Your task to perform on an android device: turn on priority inbox in the gmail app Image 0: 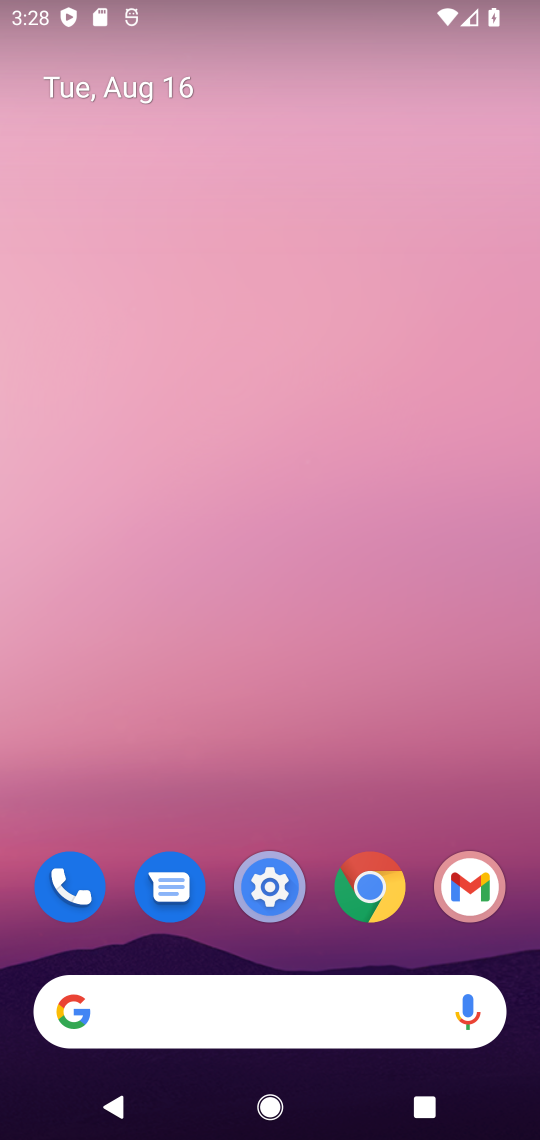
Step 0: drag from (333, 704) to (325, 107)
Your task to perform on an android device: turn on priority inbox in the gmail app Image 1: 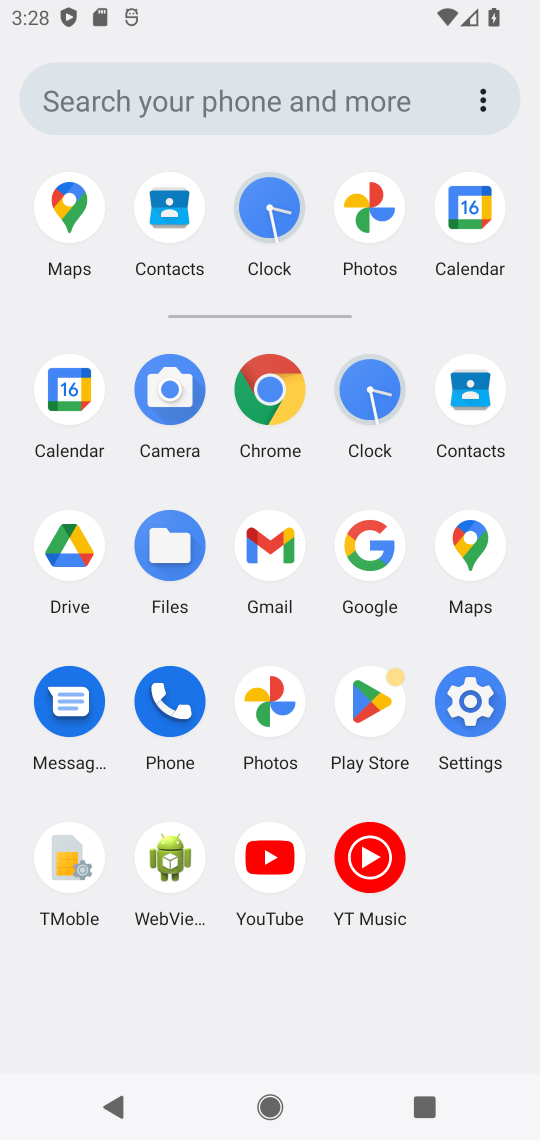
Step 1: click (271, 558)
Your task to perform on an android device: turn on priority inbox in the gmail app Image 2: 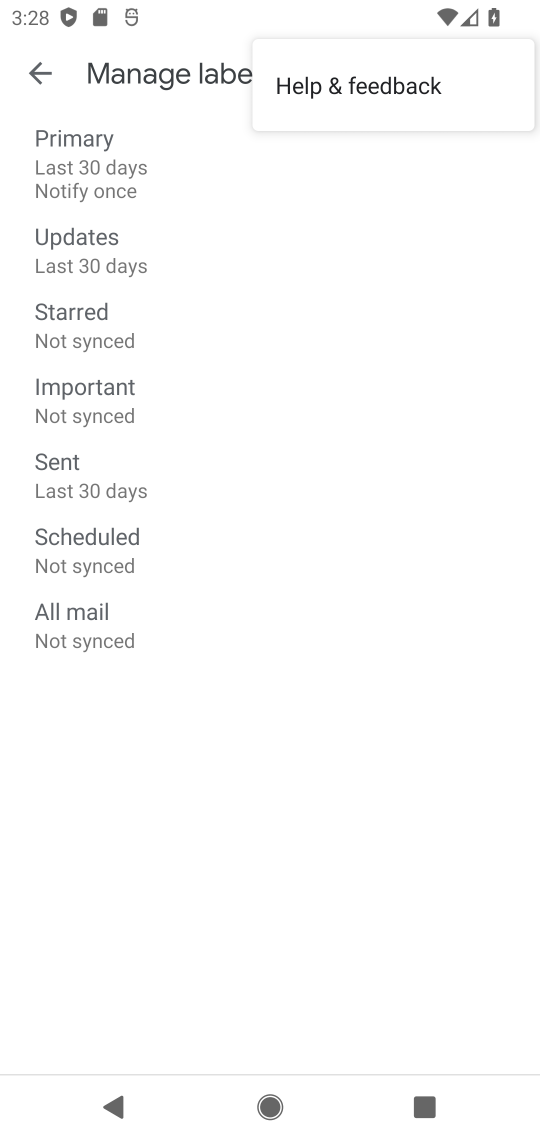
Step 2: click (31, 69)
Your task to perform on an android device: turn on priority inbox in the gmail app Image 3: 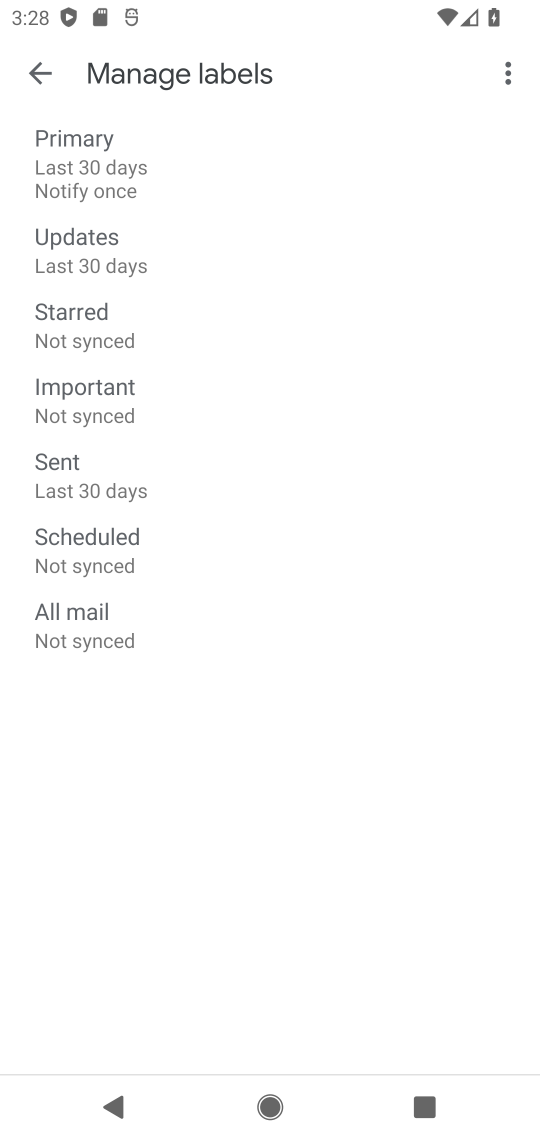
Step 3: click (37, 57)
Your task to perform on an android device: turn on priority inbox in the gmail app Image 4: 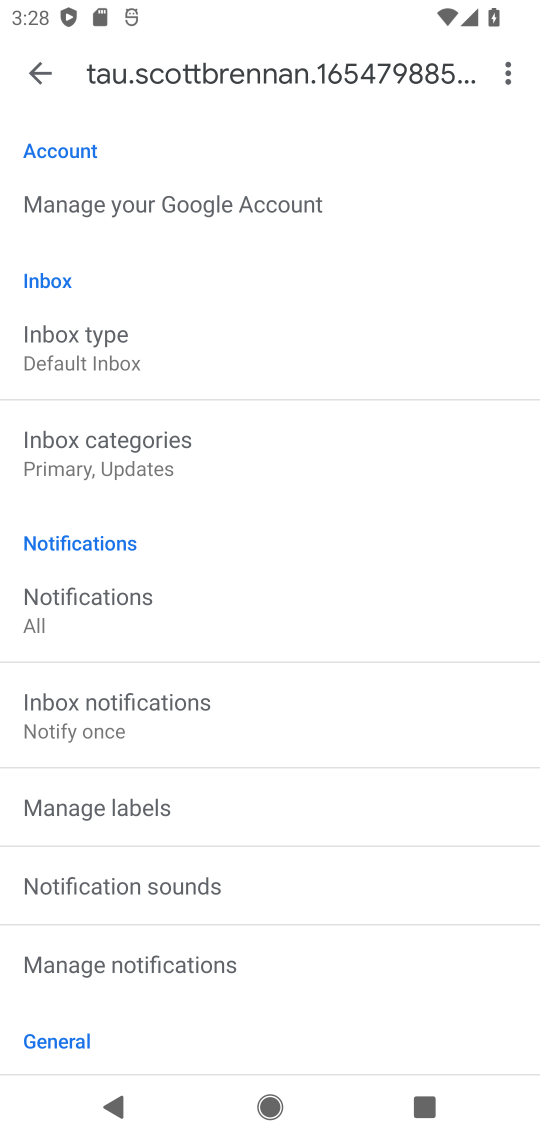
Step 4: click (123, 348)
Your task to perform on an android device: turn on priority inbox in the gmail app Image 5: 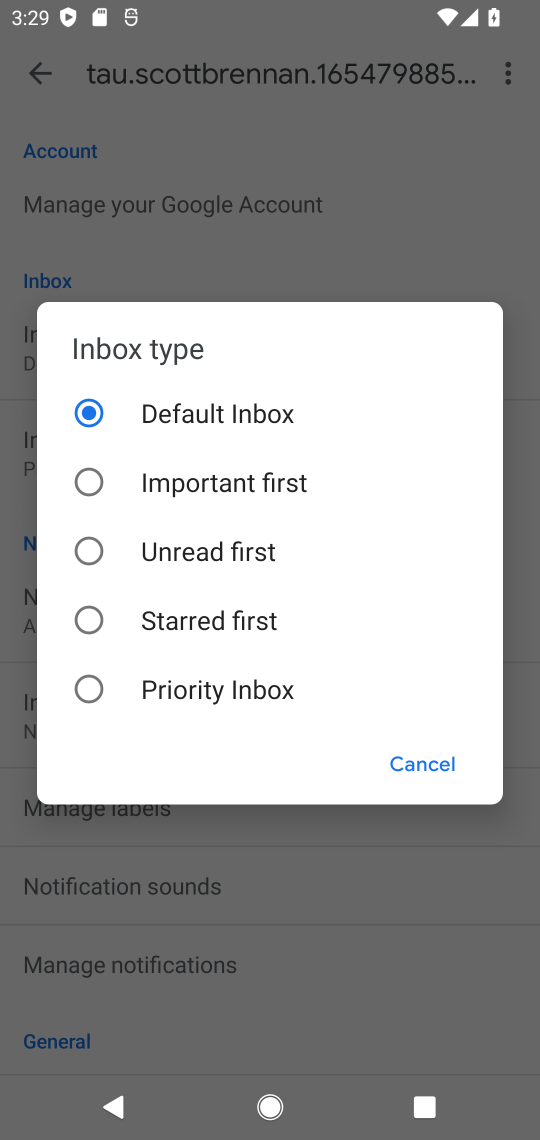
Step 5: task complete